Your task to perform on an android device: Search for logitech g pro on walmart, select the first entry, add it to the cart, then select checkout. Image 0: 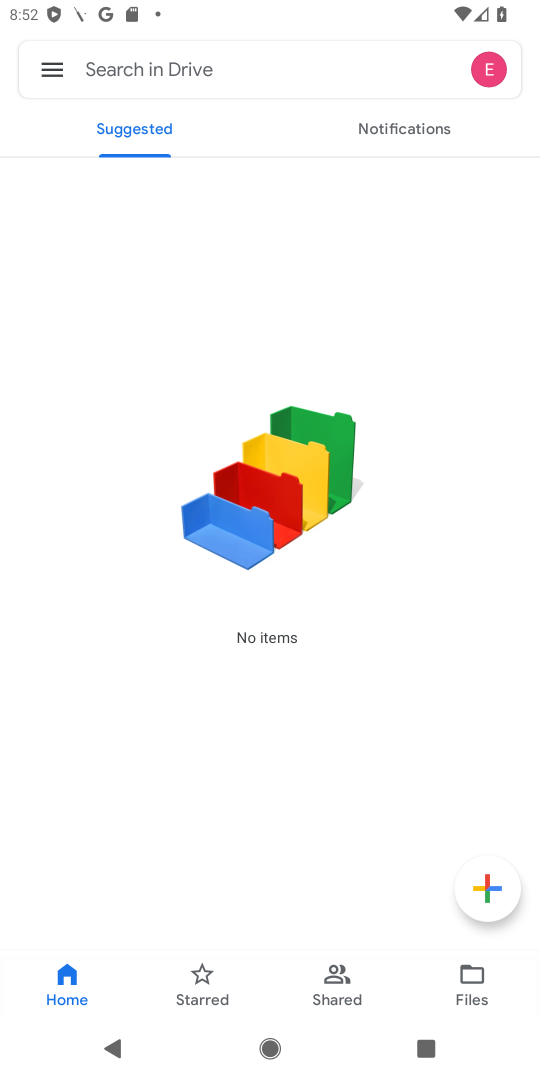
Step 0: press home button
Your task to perform on an android device: Search for logitech g pro on walmart, select the first entry, add it to the cart, then select checkout. Image 1: 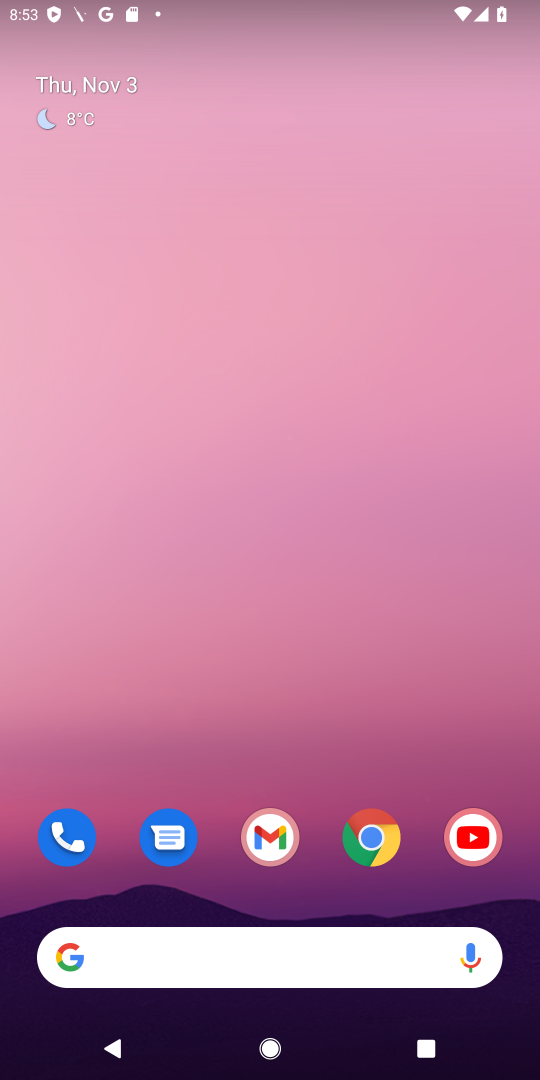
Step 1: click (369, 841)
Your task to perform on an android device: Search for logitech g pro on walmart, select the first entry, add it to the cart, then select checkout. Image 2: 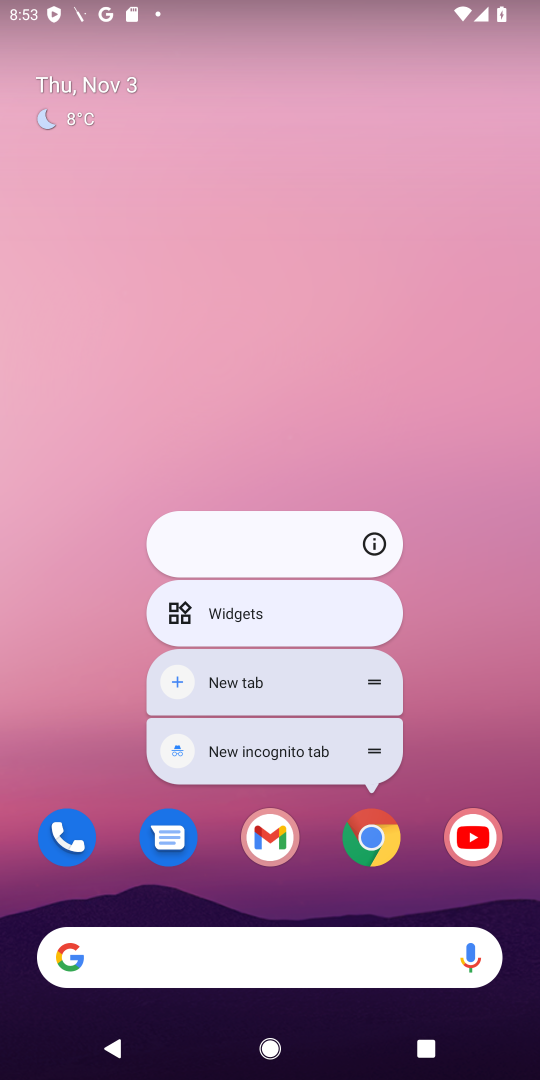
Step 2: click (372, 840)
Your task to perform on an android device: Search for logitech g pro on walmart, select the first entry, add it to the cart, then select checkout. Image 3: 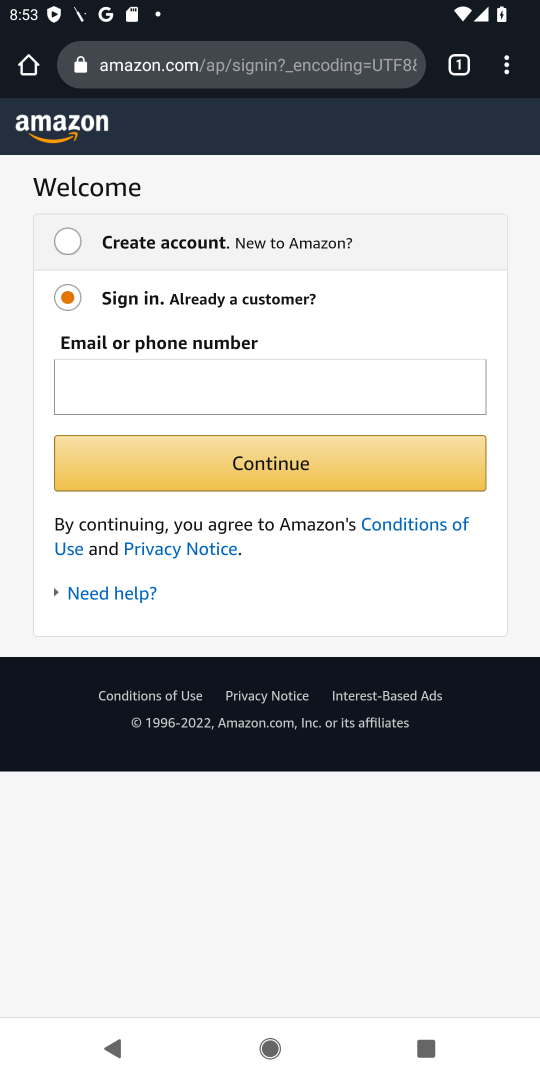
Step 3: click (237, 62)
Your task to perform on an android device: Search for logitech g pro on walmart, select the first entry, add it to the cart, then select checkout. Image 4: 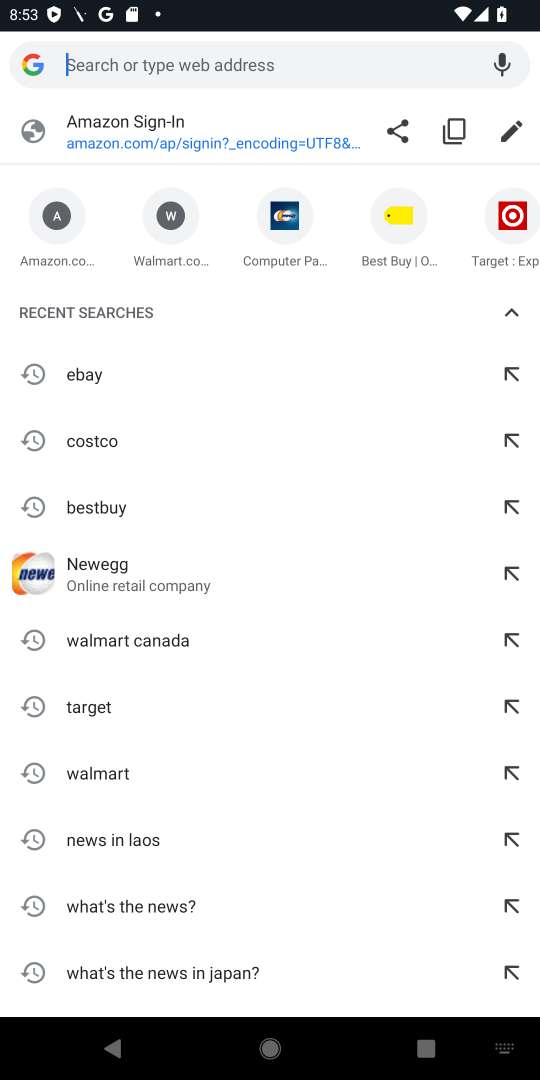
Step 4: click (177, 266)
Your task to perform on an android device: Search for logitech g pro on walmart, select the first entry, add it to the cart, then select checkout. Image 5: 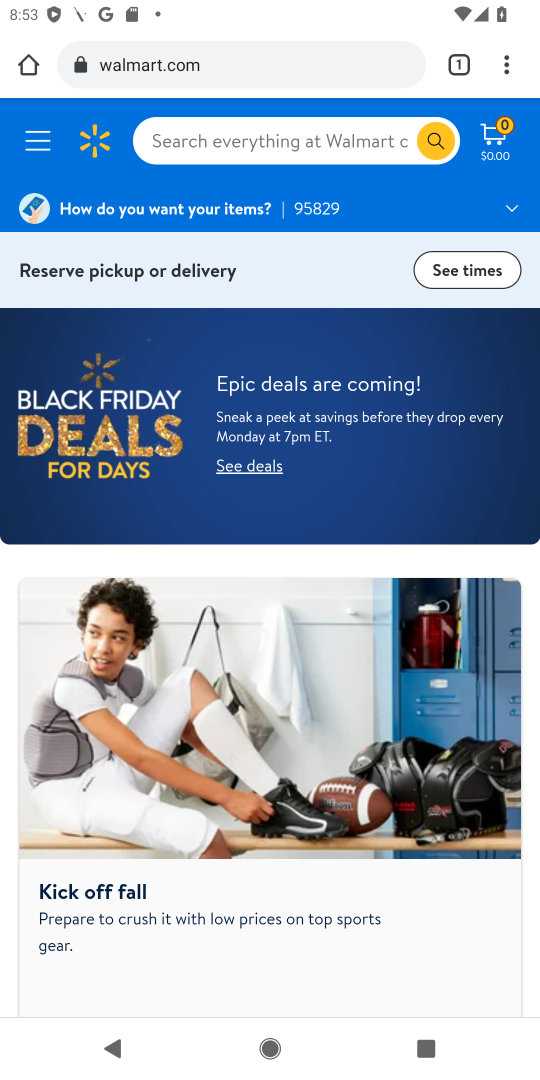
Step 5: click (261, 154)
Your task to perform on an android device: Search for logitech g pro on walmart, select the first entry, add it to the cart, then select checkout. Image 6: 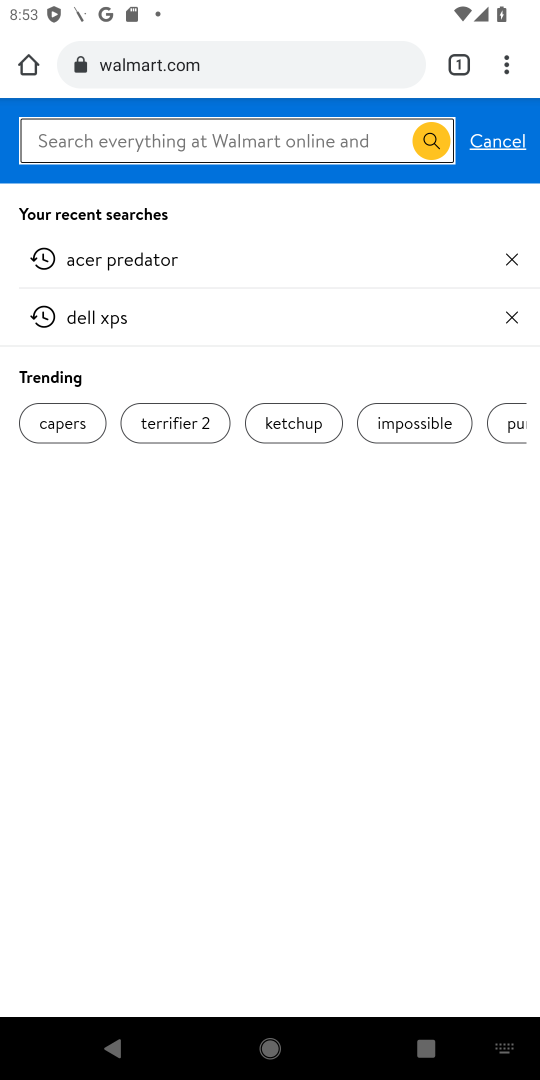
Step 6: type "logitech g pro "
Your task to perform on an android device: Search for logitech g pro on walmart, select the first entry, add it to the cart, then select checkout. Image 7: 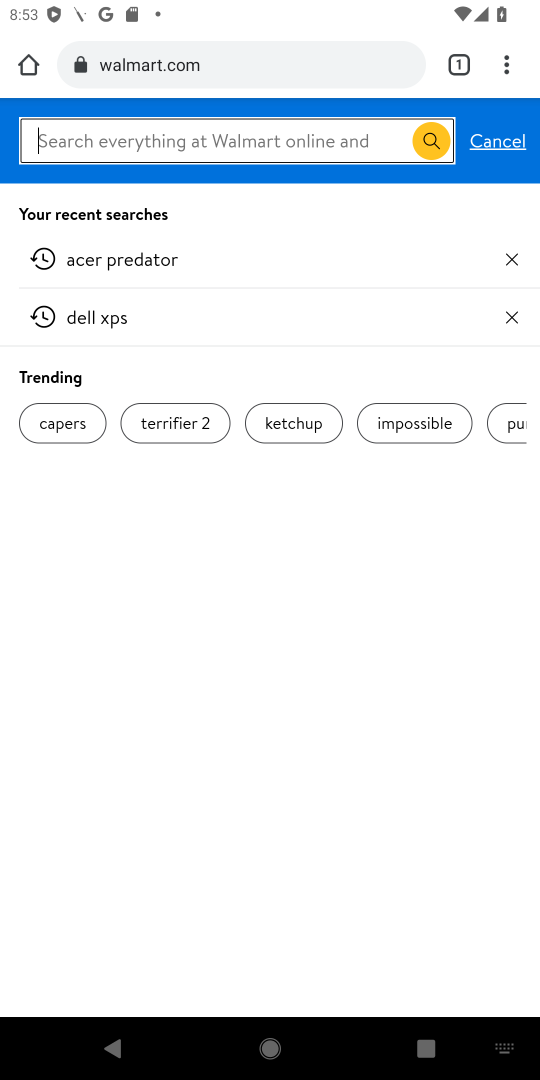
Step 7: press enter
Your task to perform on an android device: Search for logitech g pro on walmart, select the first entry, add it to the cart, then select checkout. Image 8: 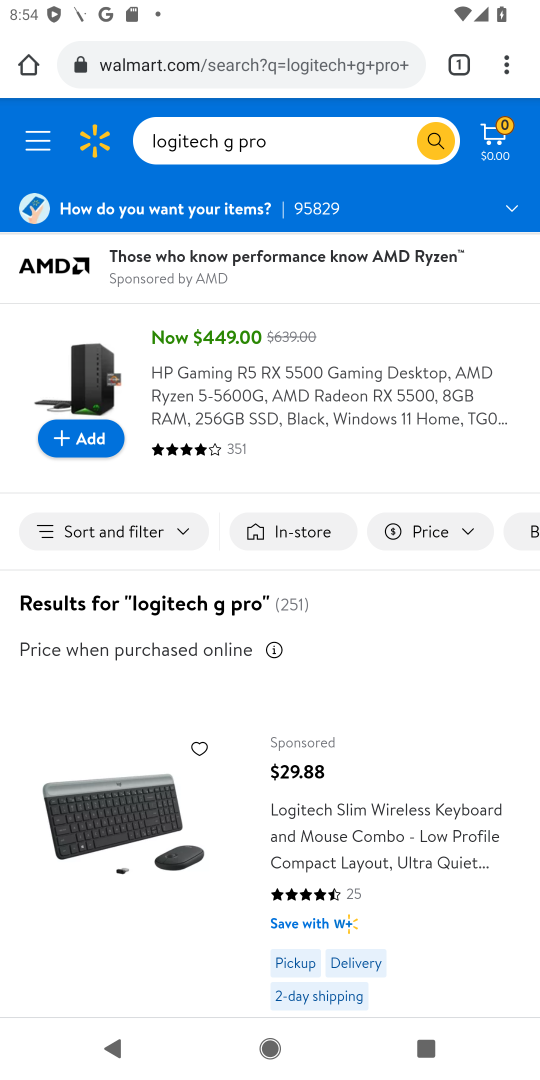
Step 8: task complete